Your task to perform on an android device: Search for seafood restaurants on Google Maps Image 0: 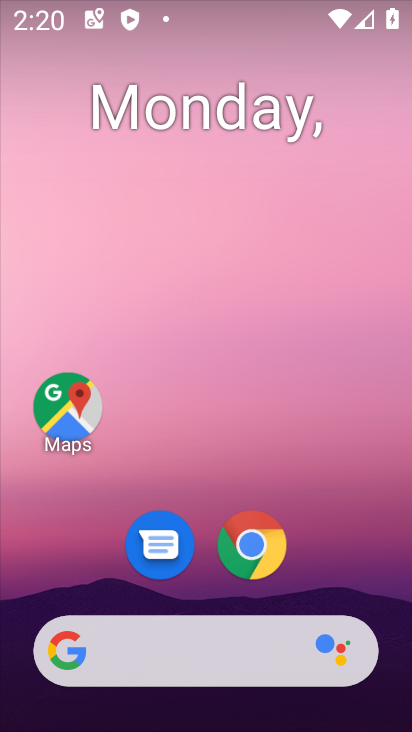
Step 0: click (70, 390)
Your task to perform on an android device: Search for seafood restaurants on Google Maps Image 1: 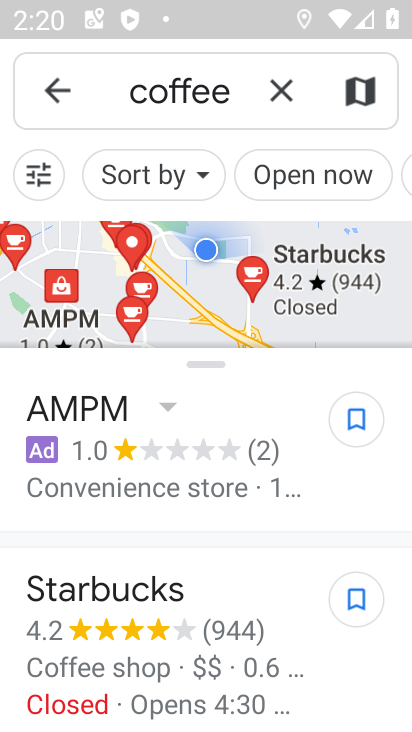
Step 1: click (277, 75)
Your task to perform on an android device: Search for seafood restaurants on Google Maps Image 2: 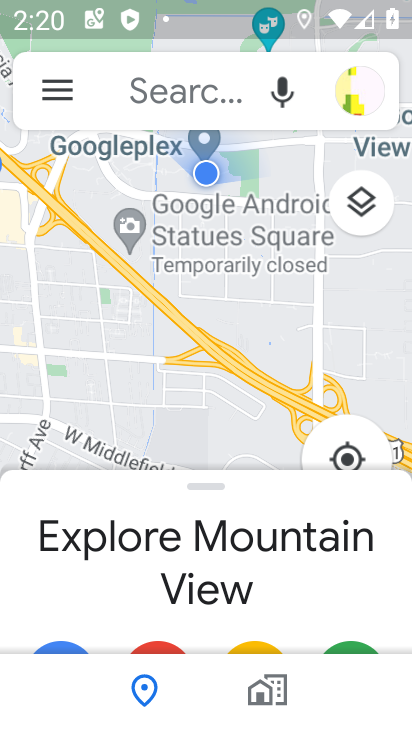
Step 2: click (168, 88)
Your task to perform on an android device: Search for seafood restaurants on Google Maps Image 3: 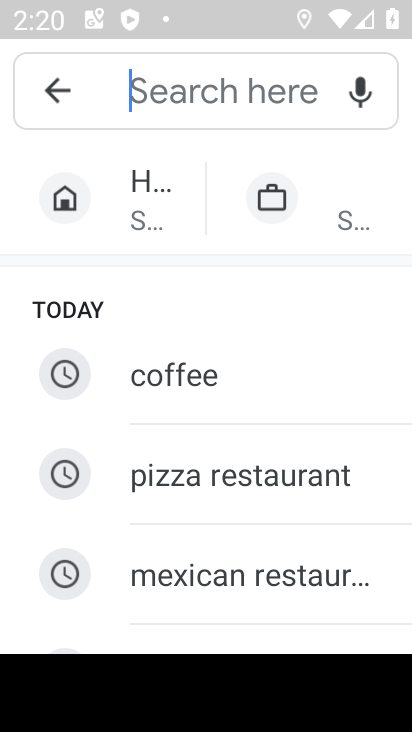
Step 3: drag from (264, 514) to (305, 43)
Your task to perform on an android device: Search for seafood restaurants on Google Maps Image 4: 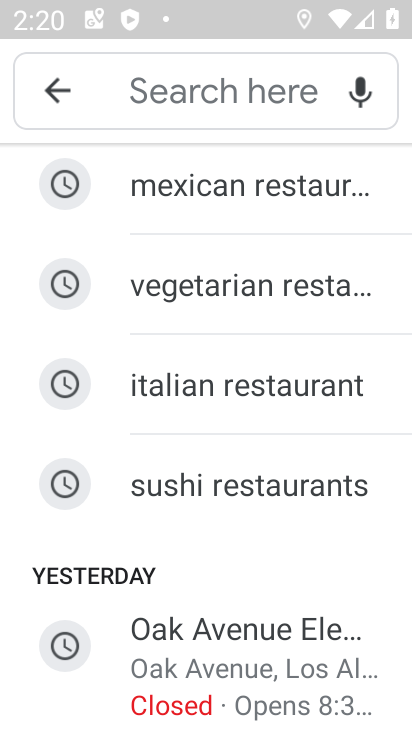
Step 4: drag from (226, 268) to (201, 660)
Your task to perform on an android device: Search for seafood restaurants on Google Maps Image 5: 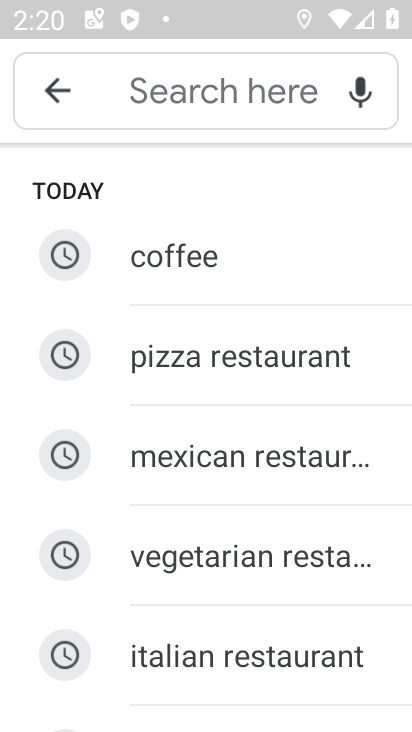
Step 5: click (170, 73)
Your task to perform on an android device: Search for seafood restaurants on Google Maps Image 6: 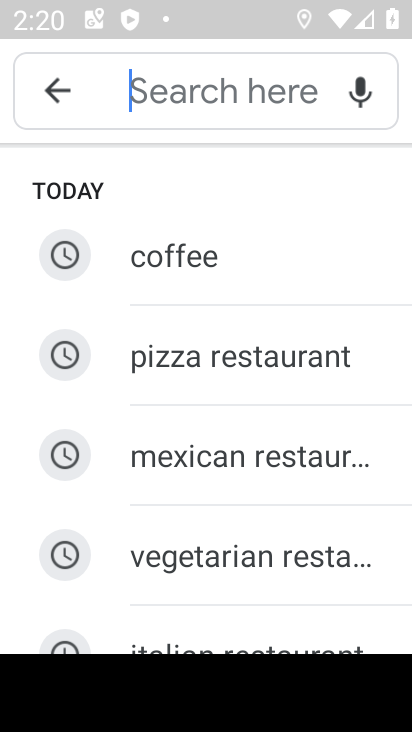
Step 6: type "seafood restaurant"
Your task to perform on an android device: Search for seafood restaurants on Google Maps Image 7: 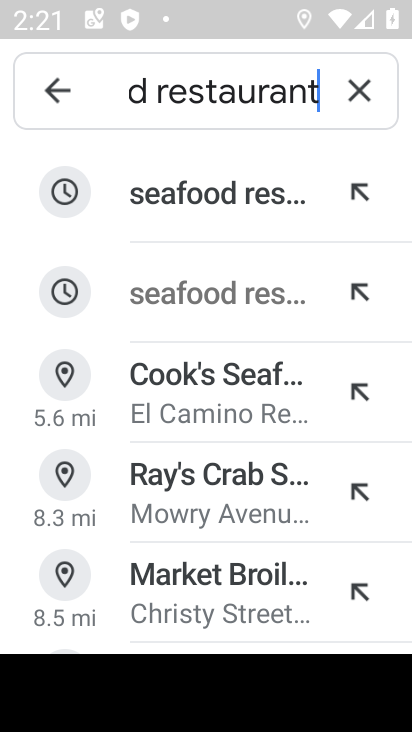
Step 7: click (216, 191)
Your task to perform on an android device: Search for seafood restaurants on Google Maps Image 8: 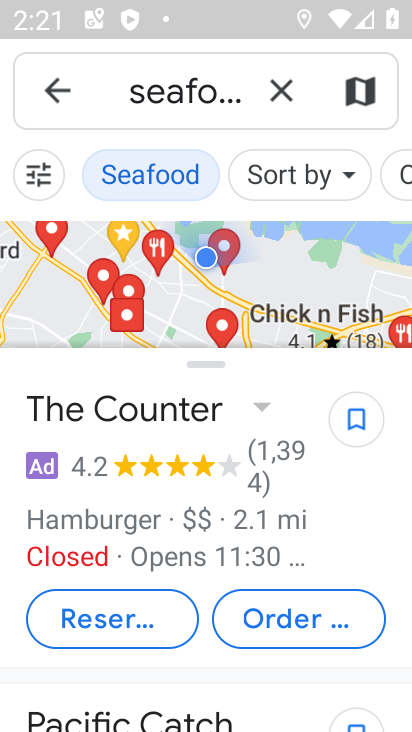
Step 8: task complete